Your task to perform on an android device: toggle location history Image 0: 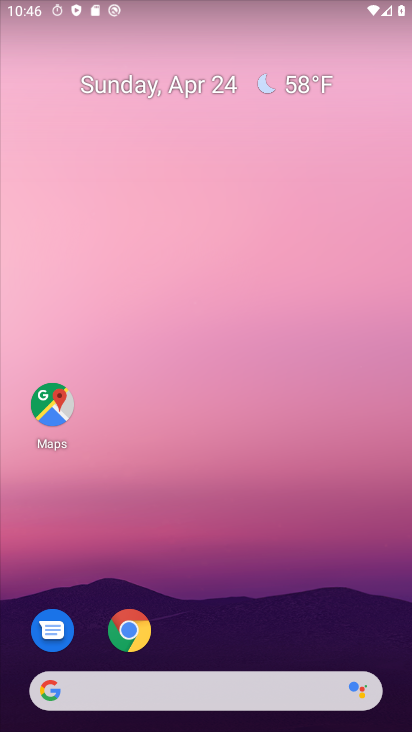
Step 0: drag from (225, 639) to (275, 311)
Your task to perform on an android device: toggle location history Image 1: 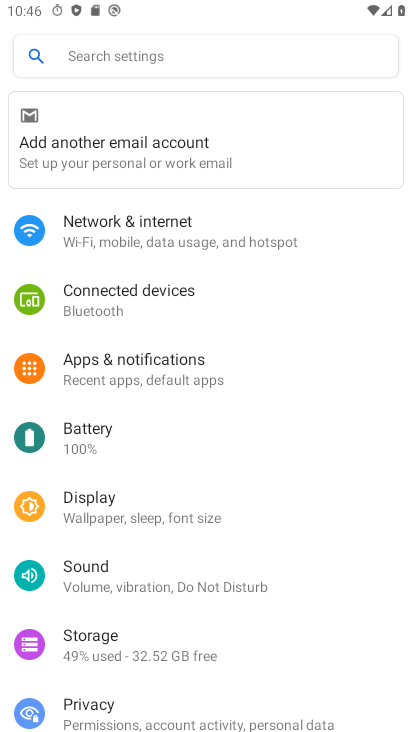
Step 1: press home button
Your task to perform on an android device: toggle location history Image 2: 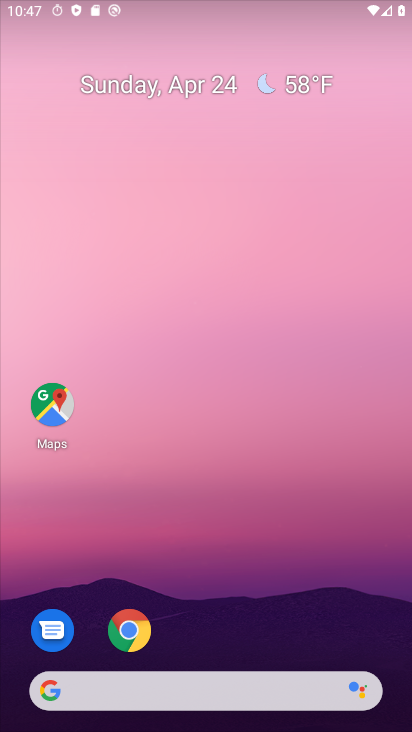
Step 2: drag from (253, 630) to (379, 132)
Your task to perform on an android device: toggle location history Image 3: 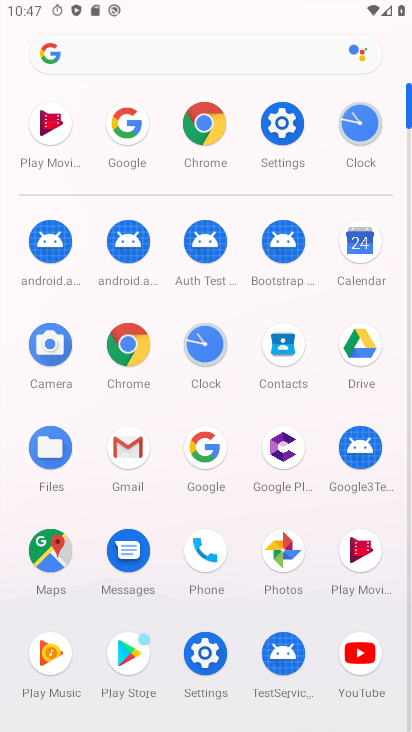
Step 3: click (284, 143)
Your task to perform on an android device: toggle location history Image 4: 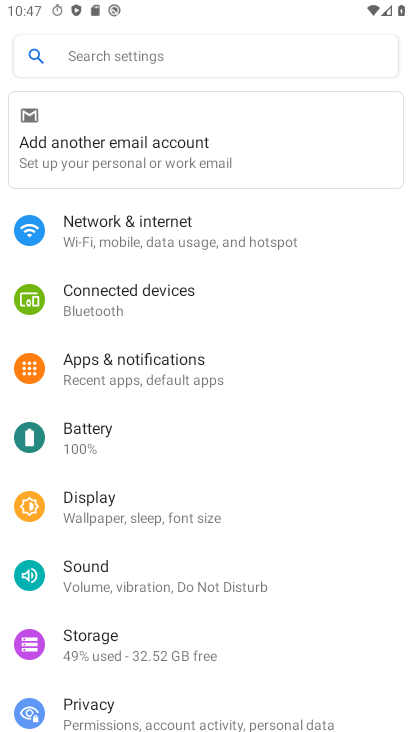
Step 4: drag from (201, 534) to (242, 249)
Your task to perform on an android device: toggle location history Image 5: 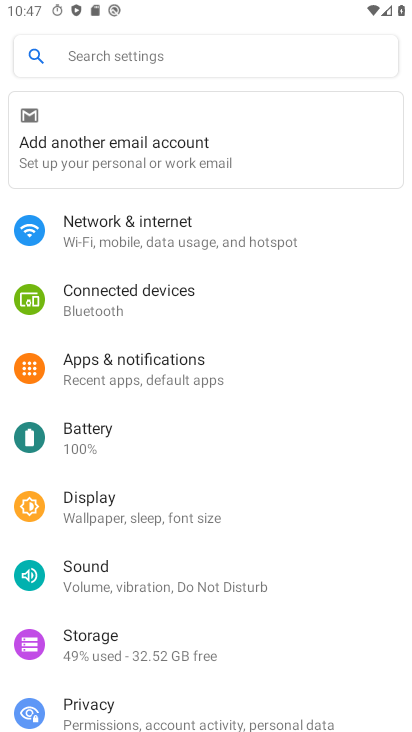
Step 5: drag from (194, 596) to (237, 272)
Your task to perform on an android device: toggle location history Image 6: 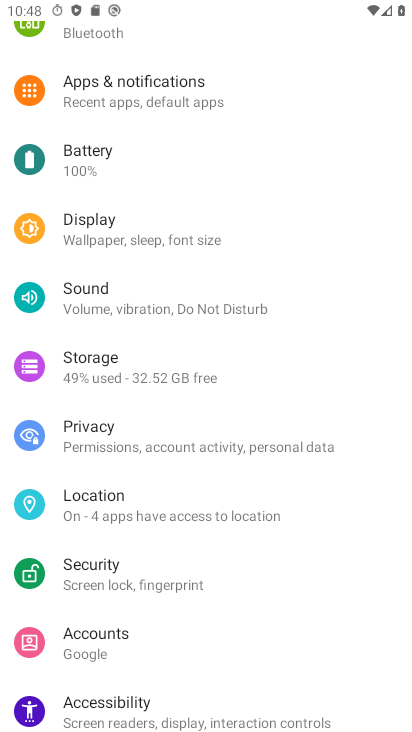
Step 6: click (167, 503)
Your task to perform on an android device: toggle location history Image 7: 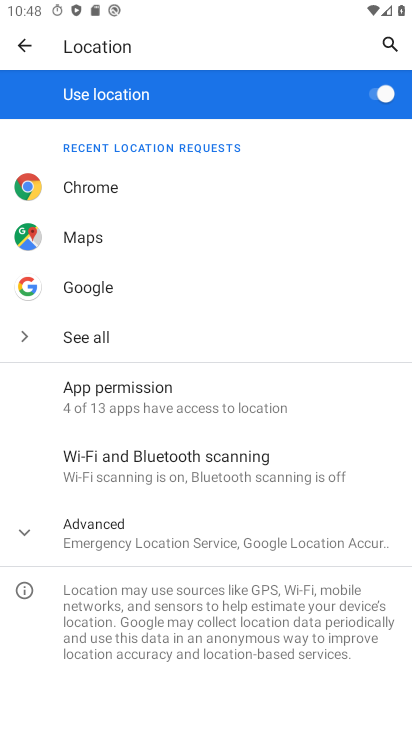
Step 7: click (152, 530)
Your task to perform on an android device: toggle location history Image 8: 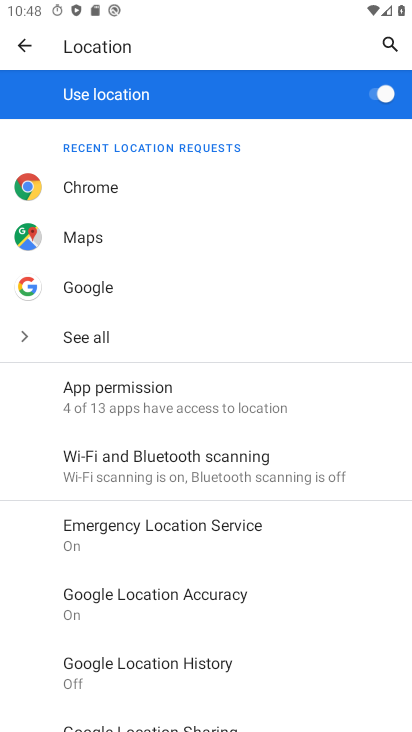
Step 8: click (194, 683)
Your task to perform on an android device: toggle location history Image 9: 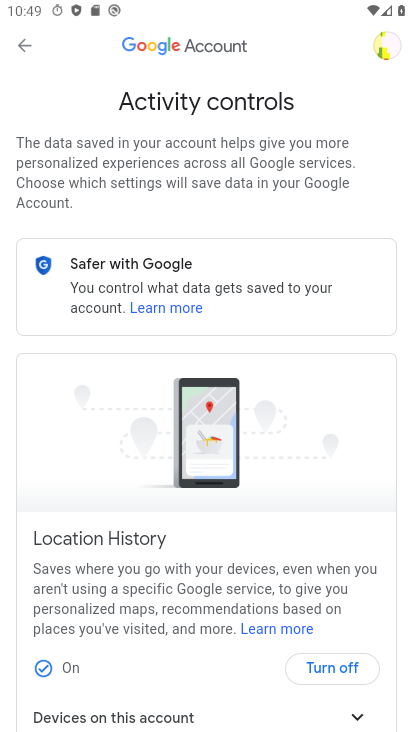
Step 9: click (336, 673)
Your task to perform on an android device: toggle location history Image 10: 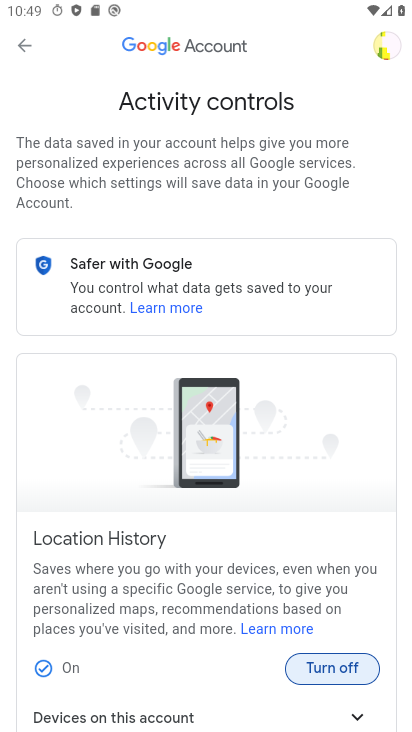
Step 10: click (330, 671)
Your task to perform on an android device: toggle location history Image 11: 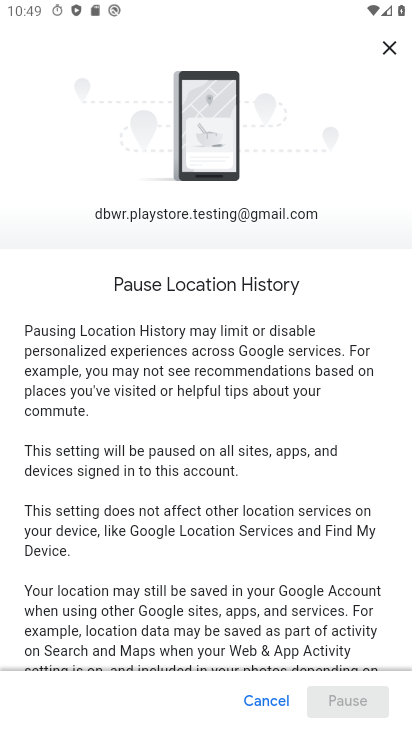
Step 11: drag from (313, 553) to (373, 187)
Your task to perform on an android device: toggle location history Image 12: 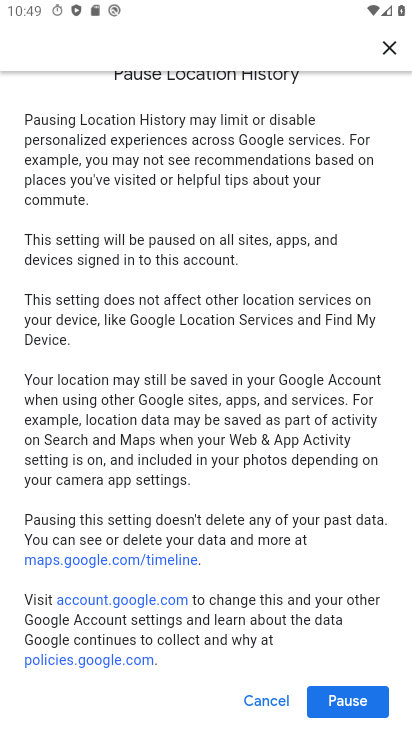
Step 12: click (352, 710)
Your task to perform on an android device: toggle location history Image 13: 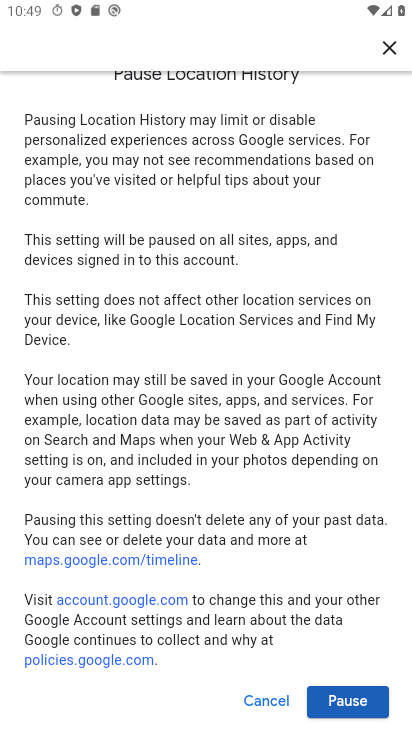
Step 13: click (352, 710)
Your task to perform on an android device: toggle location history Image 14: 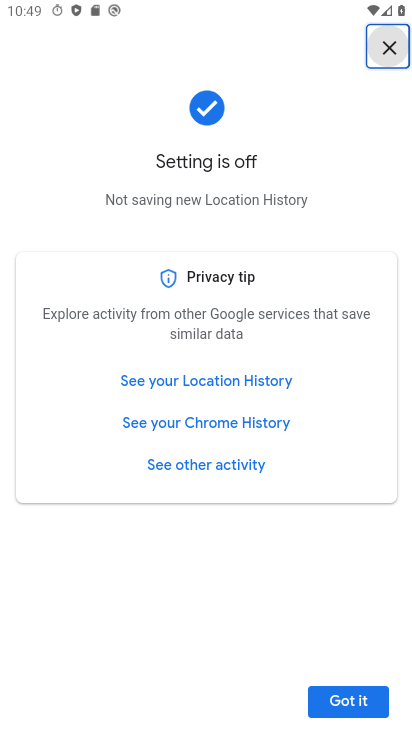
Step 14: click (367, 700)
Your task to perform on an android device: toggle location history Image 15: 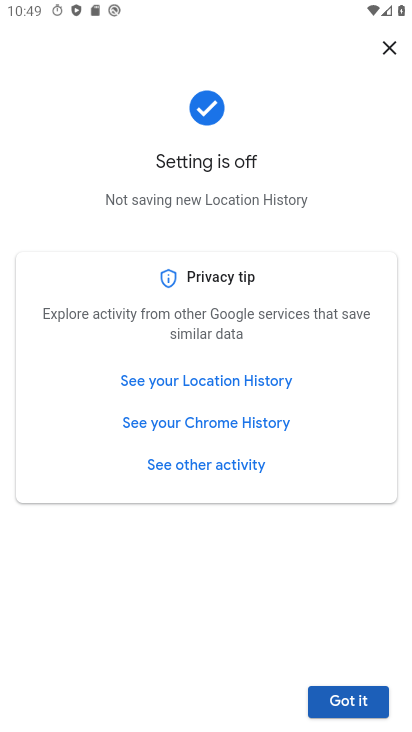
Step 15: click (367, 700)
Your task to perform on an android device: toggle location history Image 16: 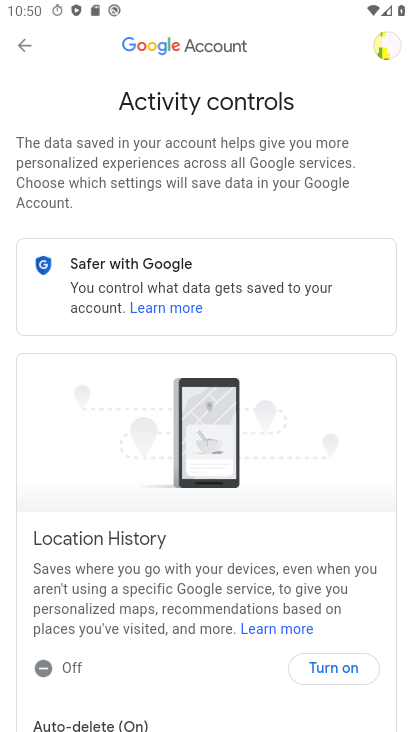
Step 16: task complete